Your task to perform on an android device: toggle data saver in the chrome app Image 0: 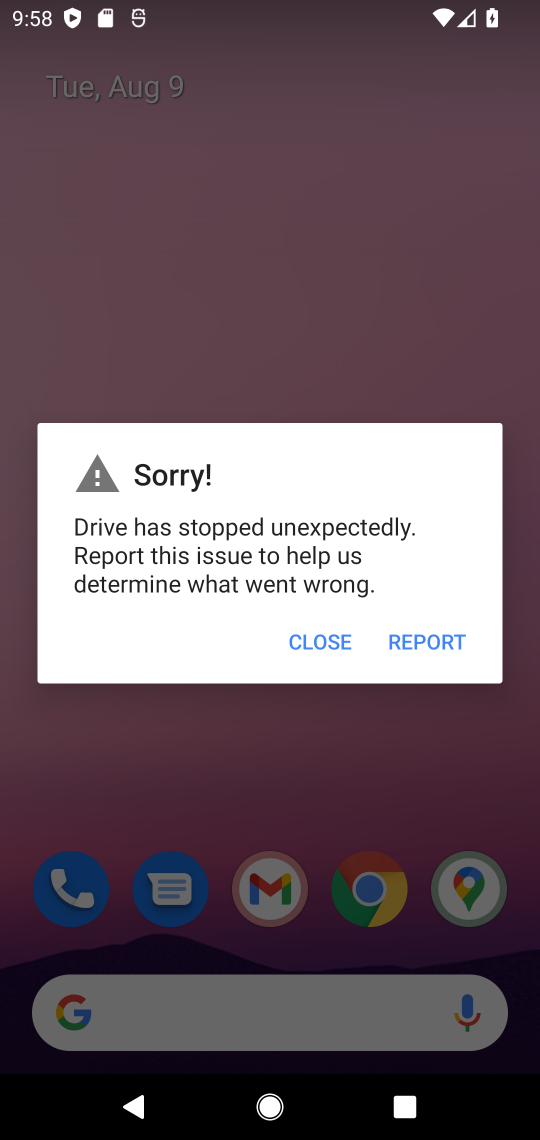
Step 0: click (294, 644)
Your task to perform on an android device: toggle data saver in the chrome app Image 1: 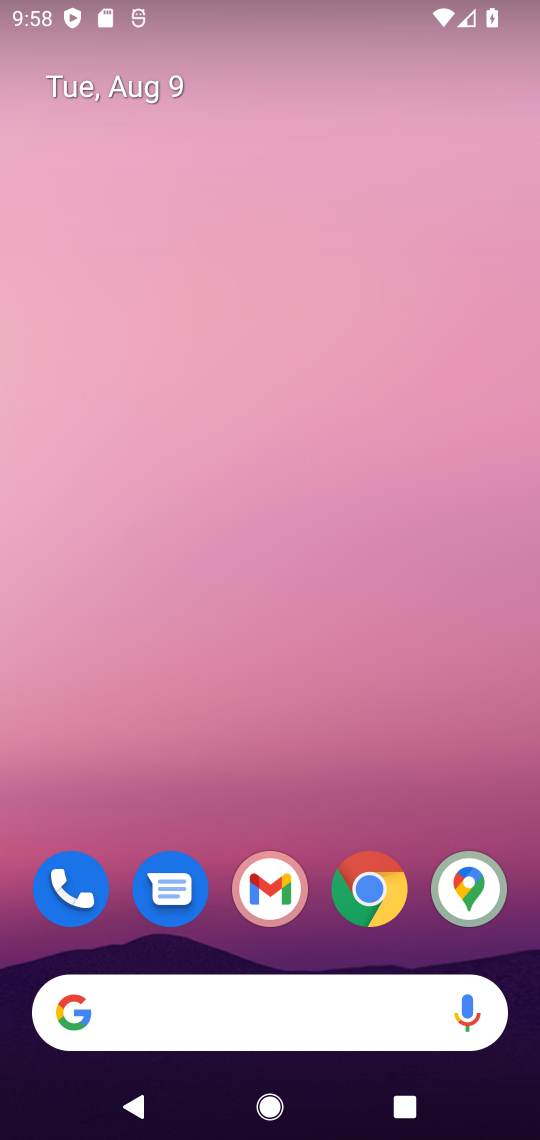
Step 1: click (385, 900)
Your task to perform on an android device: toggle data saver in the chrome app Image 2: 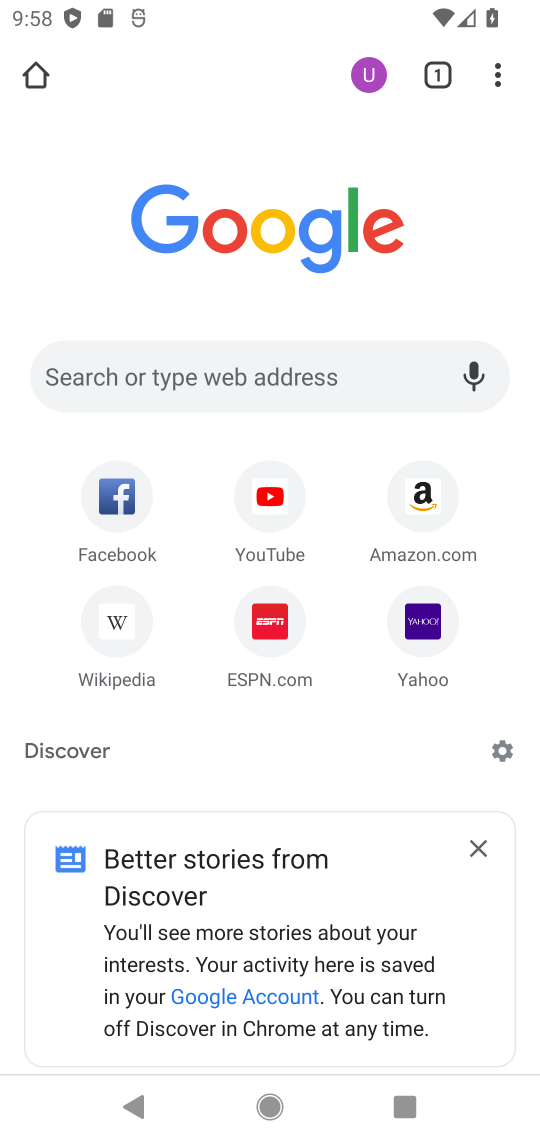
Step 2: drag from (492, 64) to (293, 710)
Your task to perform on an android device: toggle data saver in the chrome app Image 3: 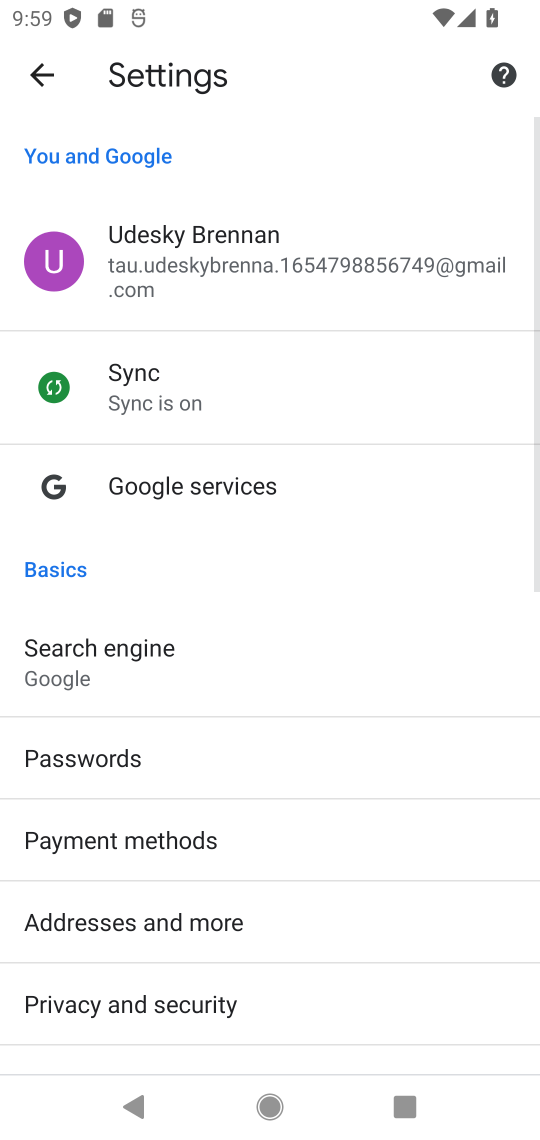
Step 3: drag from (227, 959) to (384, 212)
Your task to perform on an android device: toggle data saver in the chrome app Image 4: 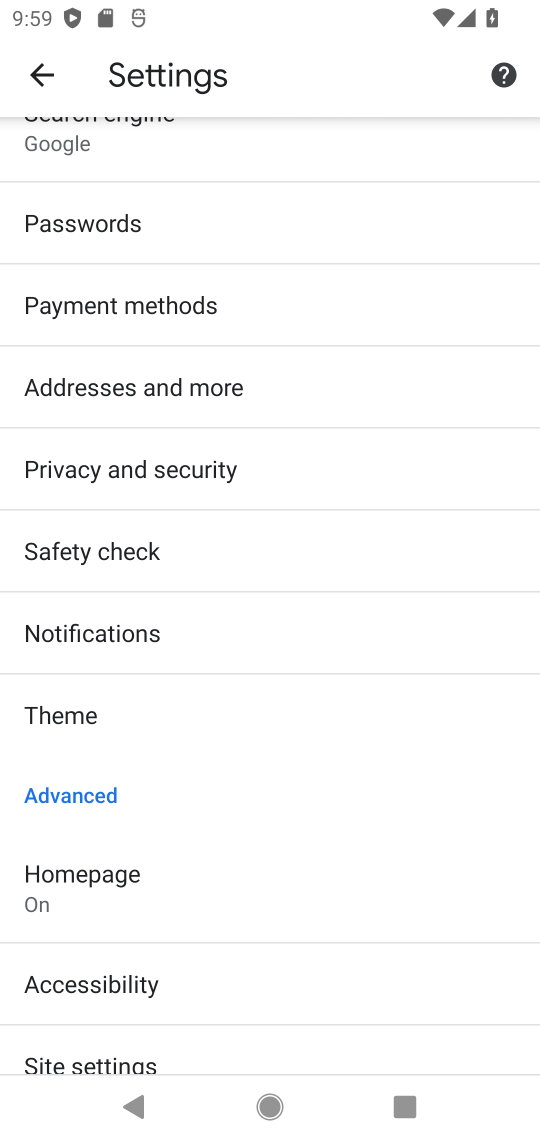
Step 4: drag from (189, 957) to (378, 254)
Your task to perform on an android device: toggle data saver in the chrome app Image 5: 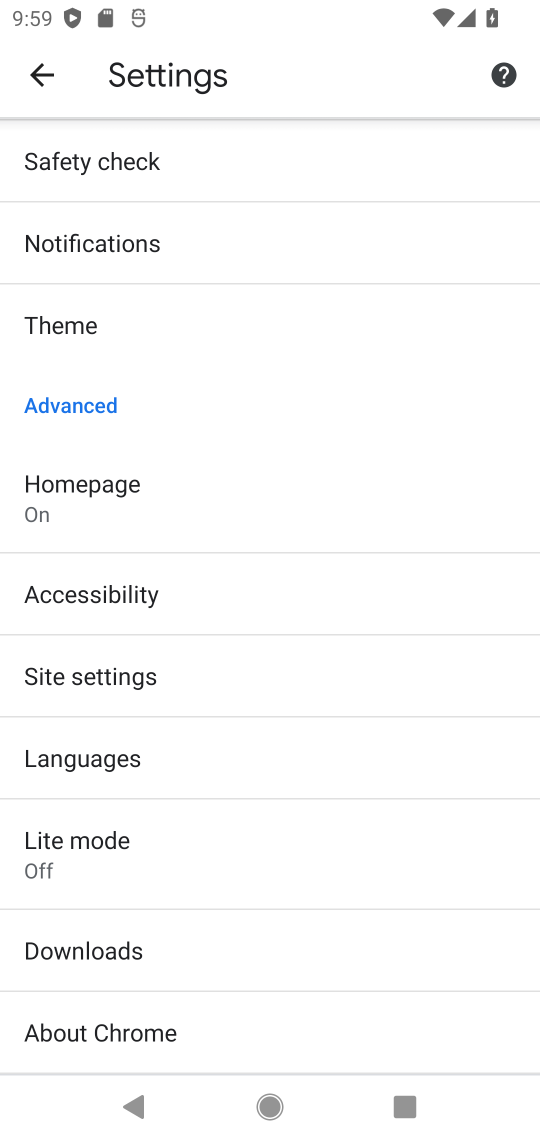
Step 5: click (149, 866)
Your task to perform on an android device: toggle data saver in the chrome app Image 6: 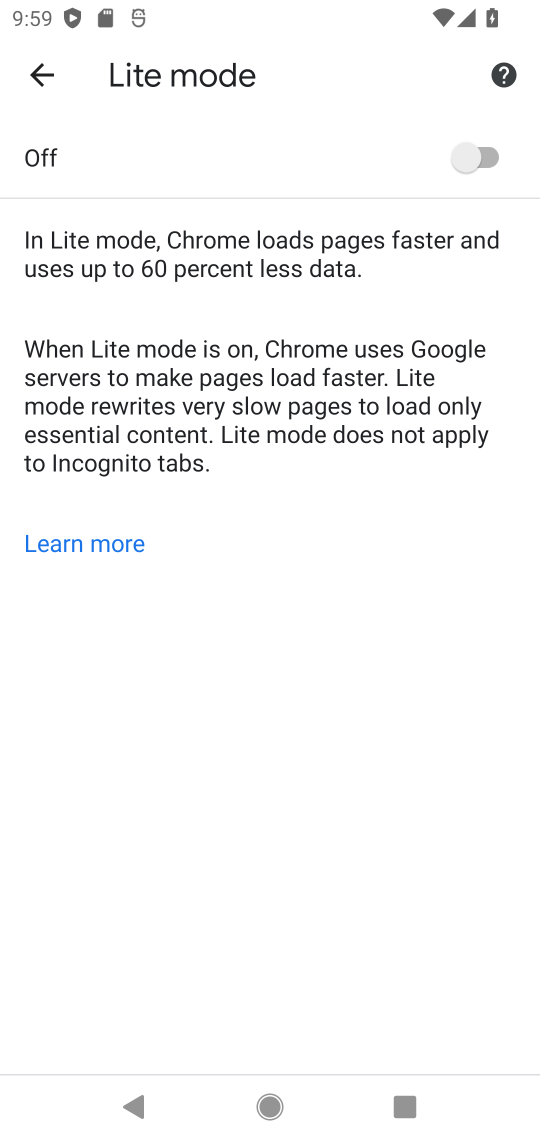
Step 6: click (490, 152)
Your task to perform on an android device: toggle data saver in the chrome app Image 7: 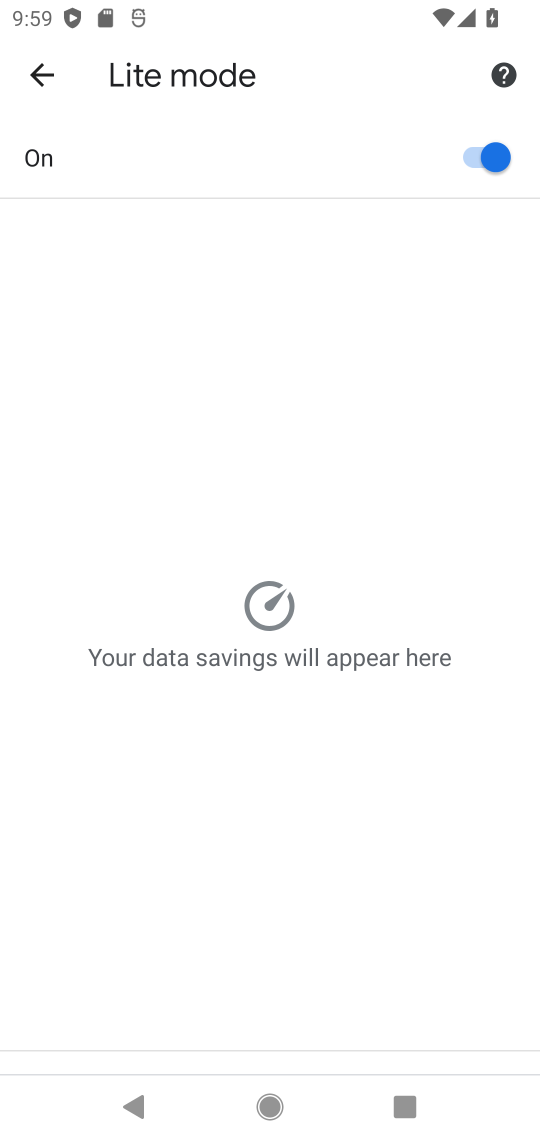
Step 7: task complete